Your task to perform on an android device: turn on the 12-hour format for clock Image 0: 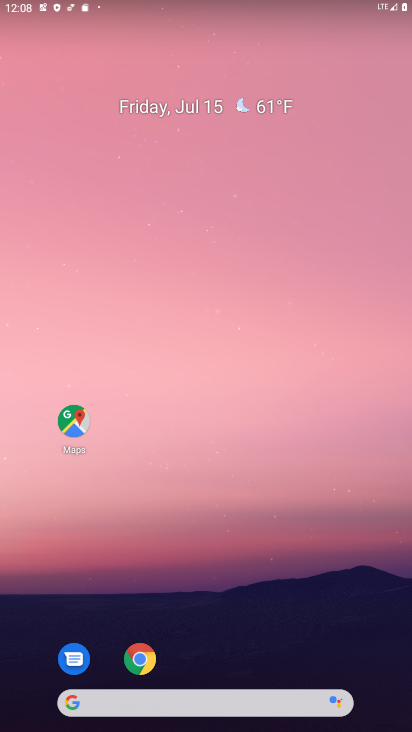
Step 0: drag from (191, 701) to (212, 185)
Your task to perform on an android device: turn on the 12-hour format for clock Image 1: 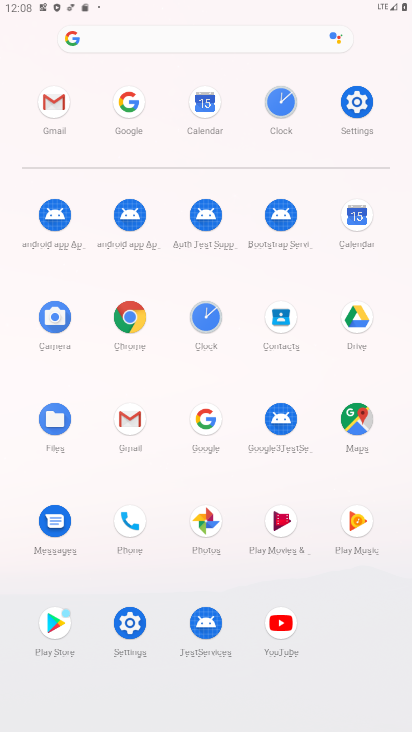
Step 1: click (282, 104)
Your task to perform on an android device: turn on the 12-hour format for clock Image 2: 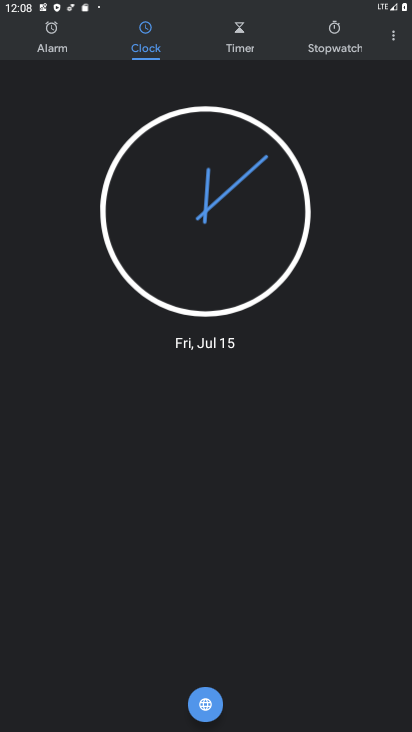
Step 2: click (393, 36)
Your task to perform on an android device: turn on the 12-hour format for clock Image 3: 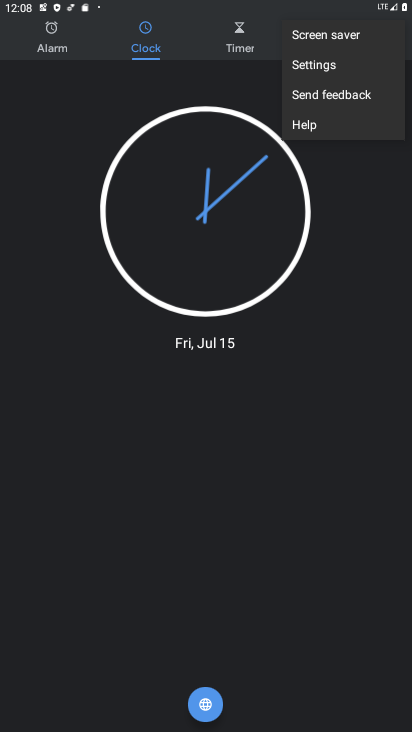
Step 3: click (327, 68)
Your task to perform on an android device: turn on the 12-hour format for clock Image 4: 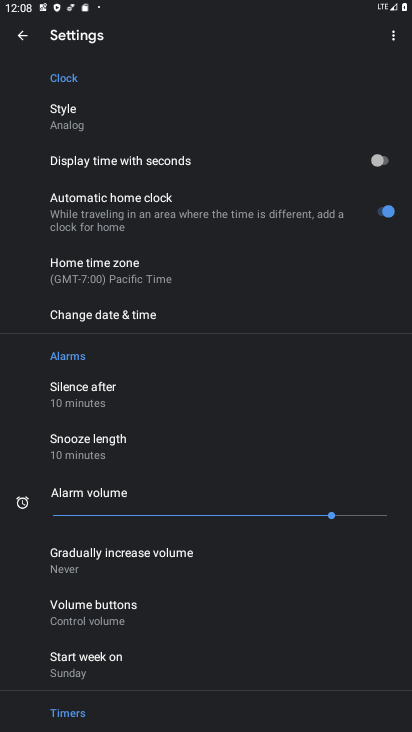
Step 4: click (127, 316)
Your task to perform on an android device: turn on the 12-hour format for clock Image 5: 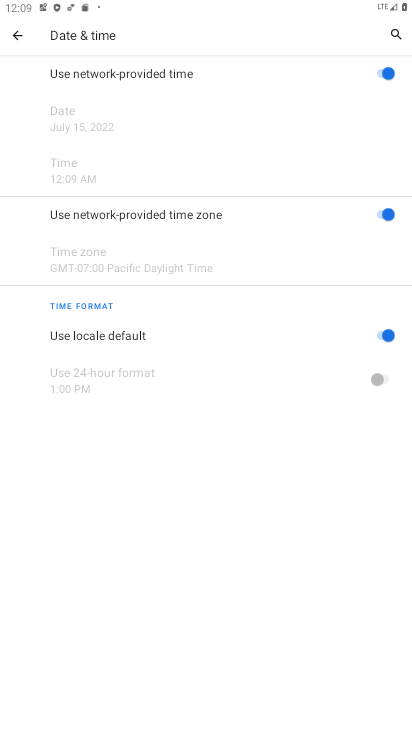
Step 5: task complete